Your task to perform on an android device: Search for usb-b on costco.com, select the first entry, and add it to the cart. Image 0: 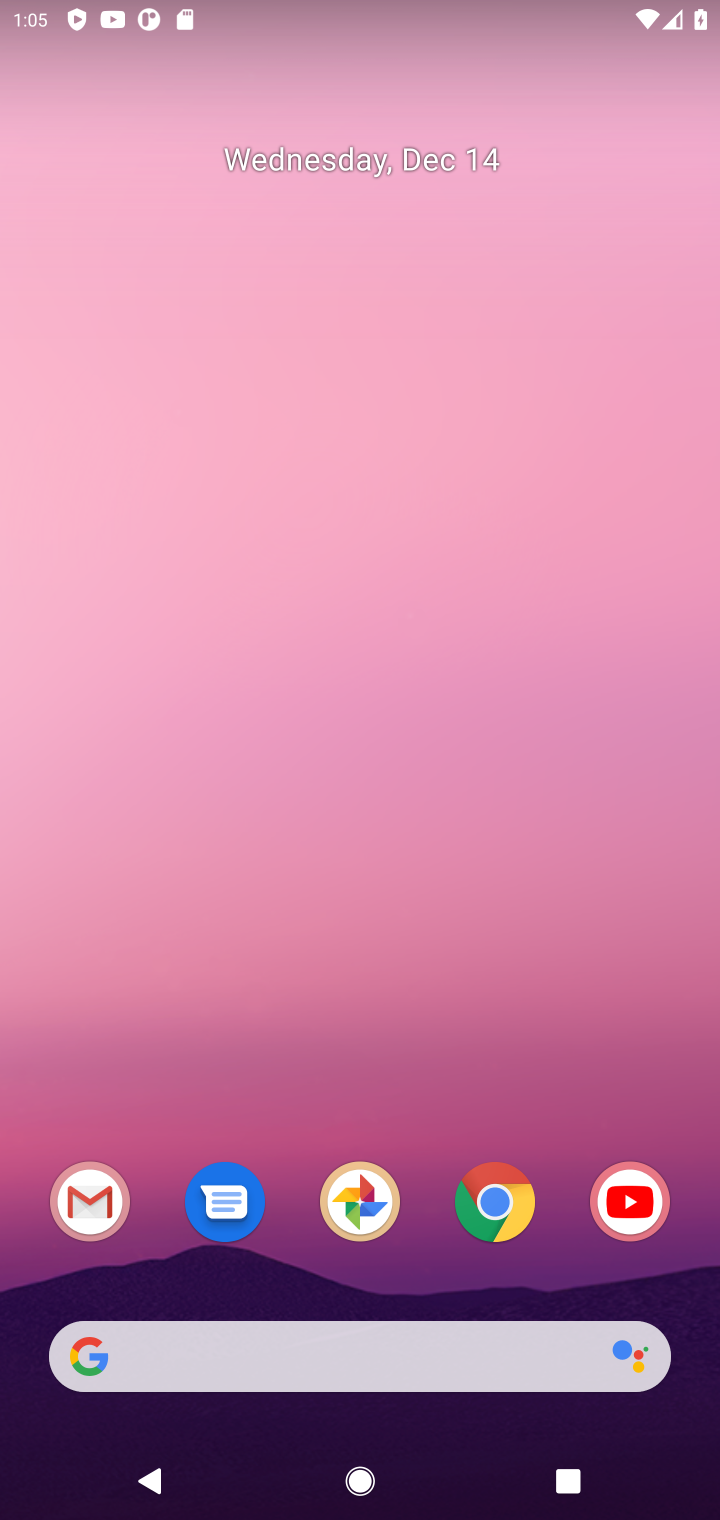
Step 0: task complete